Your task to perform on an android device: Open calendar and show me the second week of next month Image 0: 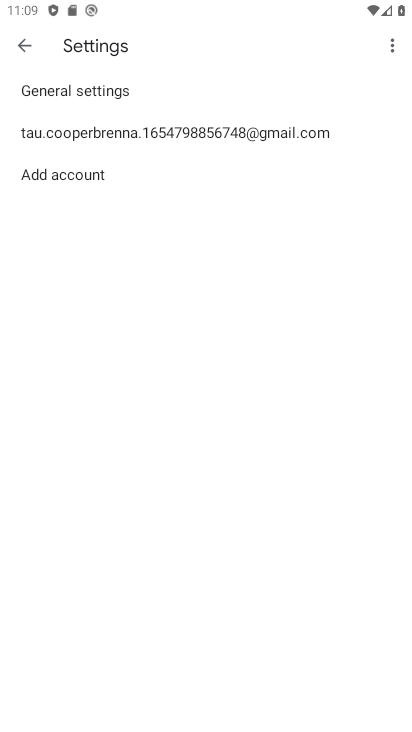
Step 0: click (16, 39)
Your task to perform on an android device: Open calendar and show me the second week of next month Image 1: 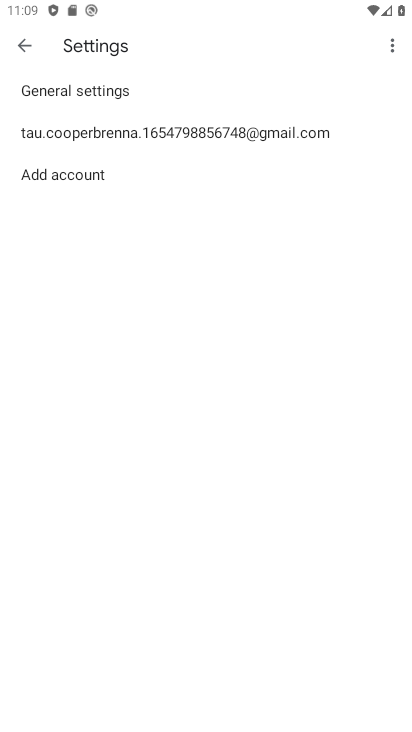
Step 1: click (16, 40)
Your task to perform on an android device: Open calendar and show me the second week of next month Image 2: 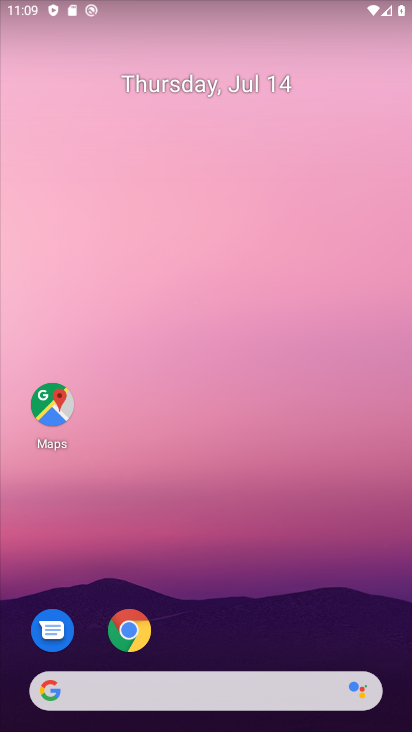
Step 2: drag from (199, 643) to (141, 143)
Your task to perform on an android device: Open calendar and show me the second week of next month Image 3: 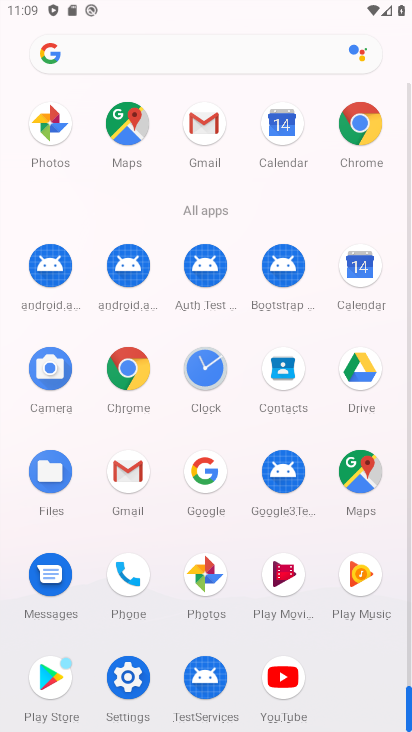
Step 3: click (358, 262)
Your task to perform on an android device: Open calendar and show me the second week of next month Image 4: 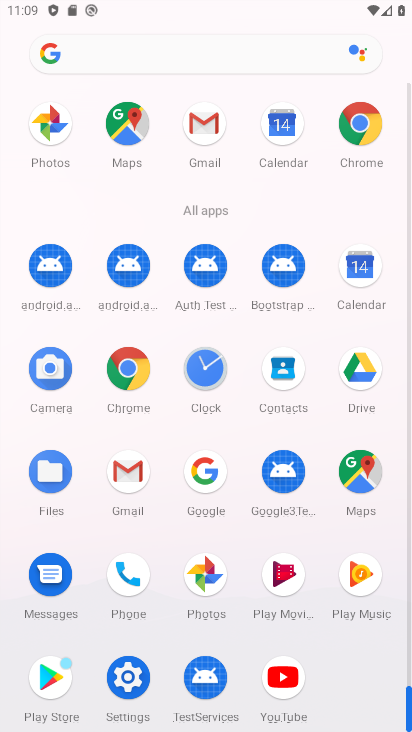
Step 4: click (358, 262)
Your task to perform on an android device: Open calendar and show me the second week of next month Image 5: 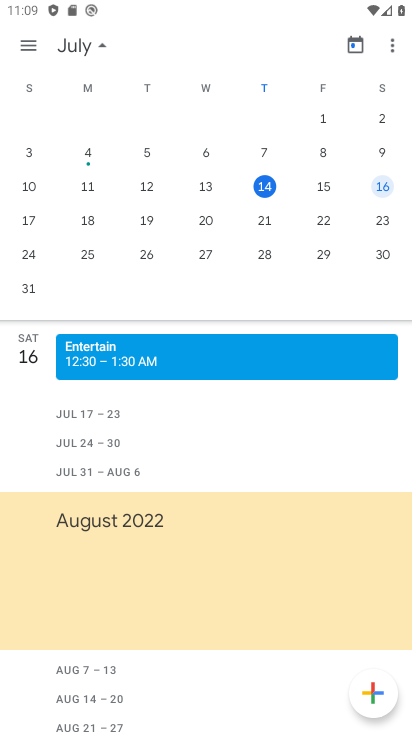
Step 5: drag from (343, 180) to (4, 171)
Your task to perform on an android device: Open calendar and show me the second week of next month Image 6: 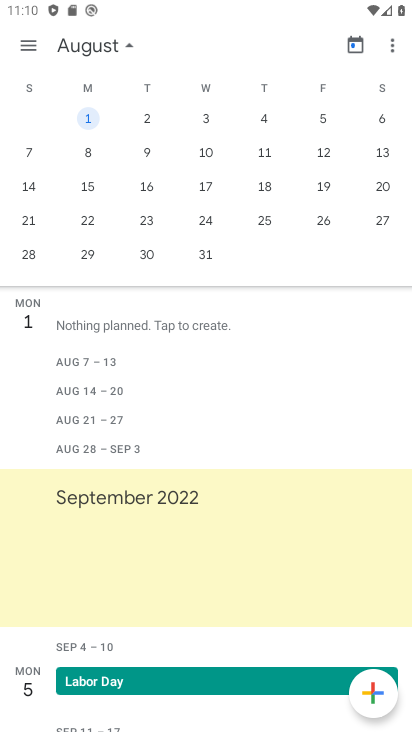
Step 6: click (141, 141)
Your task to perform on an android device: Open calendar and show me the second week of next month Image 7: 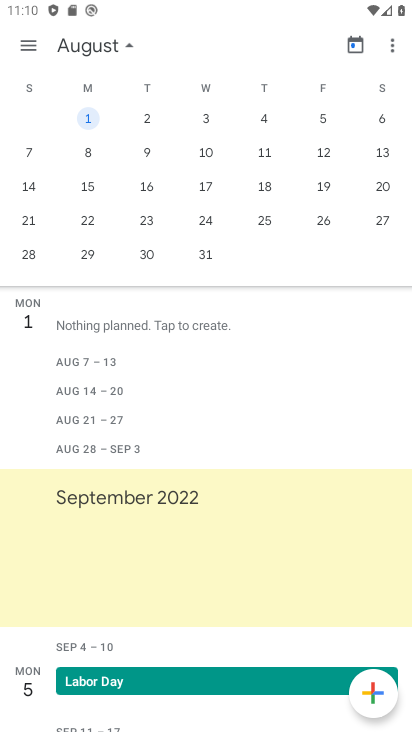
Step 7: click (141, 149)
Your task to perform on an android device: Open calendar and show me the second week of next month Image 8: 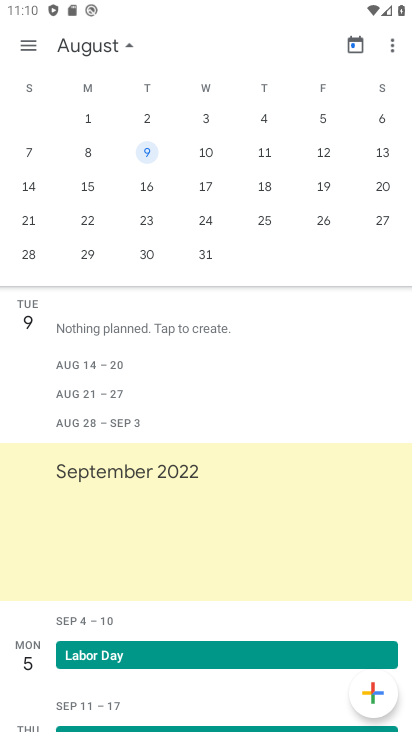
Step 8: click (141, 149)
Your task to perform on an android device: Open calendar and show me the second week of next month Image 9: 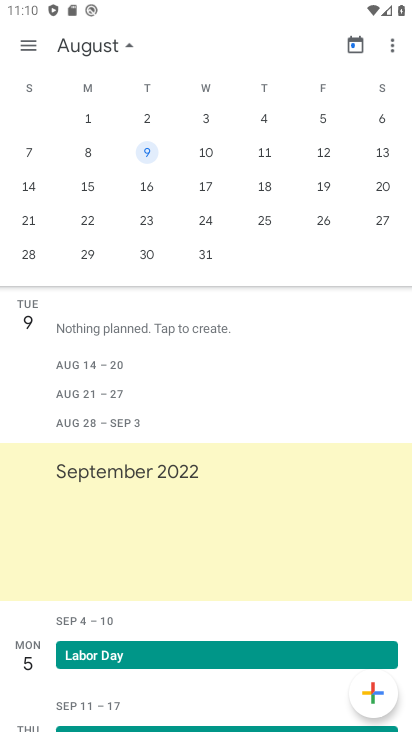
Step 9: click (141, 150)
Your task to perform on an android device: Open calendar and show me the second week of next month Image 10: 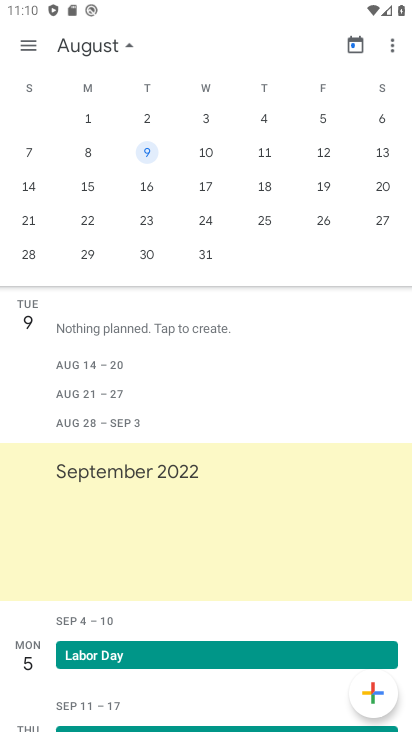
Step 10: task complete